Your task to perform on an android device: Open the calendar and show me this week's events? Image 0: 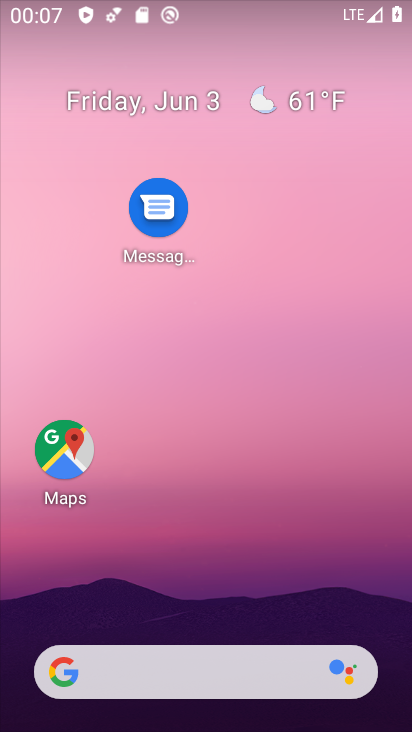
Step 0: drag from (208, 646) to (333, 91)
Your task to perform on an android device: Open the calendar and show me this week's events? Image 1: 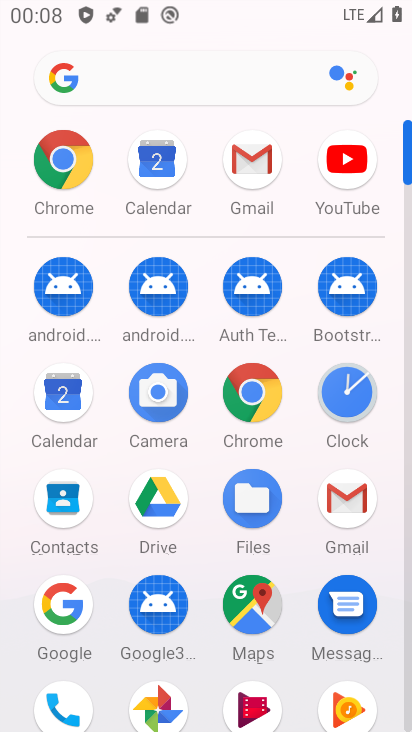
Step 1: click (64, 410)
Your task to perform on an android device: Open the calendar and show me this week's events? Image 2: 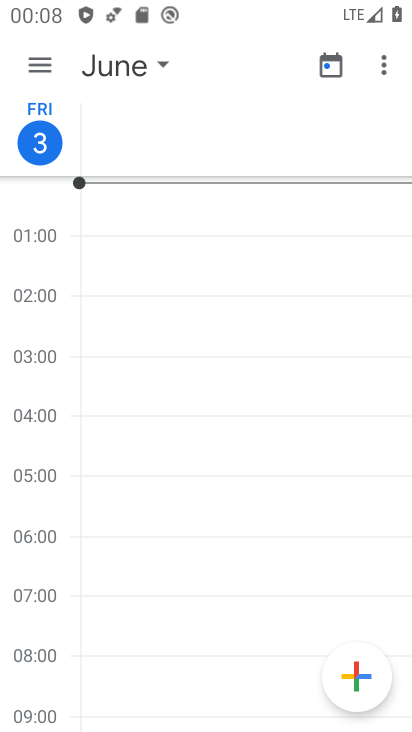
Step 2: click (42, 46)
Your task to perform on an android device: Open the calendar and show me this week's events? Image 3: 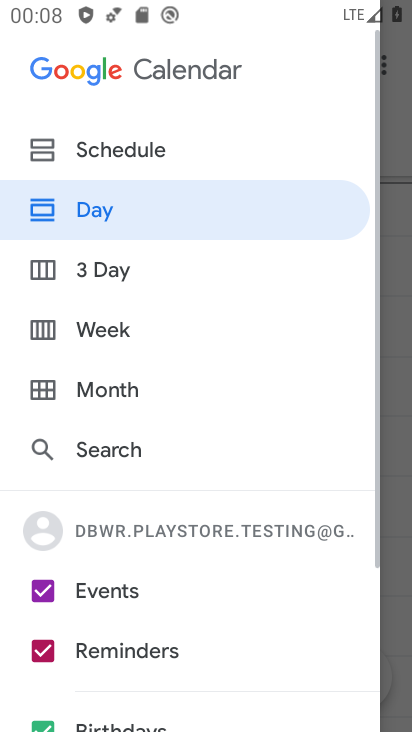
Step 3: click (113, 330)
Your task to perform on an android device: Open the calendar and show me this week's events? Image 4: 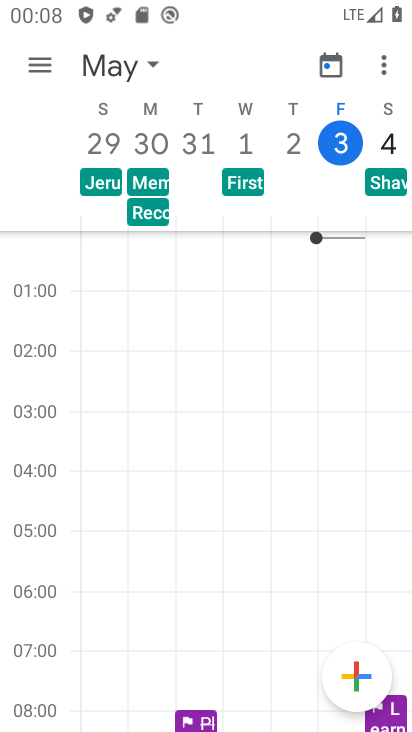
Step 4: task complete